Your task to perform on an android device: clear all cookies in the chrome app Image 0: 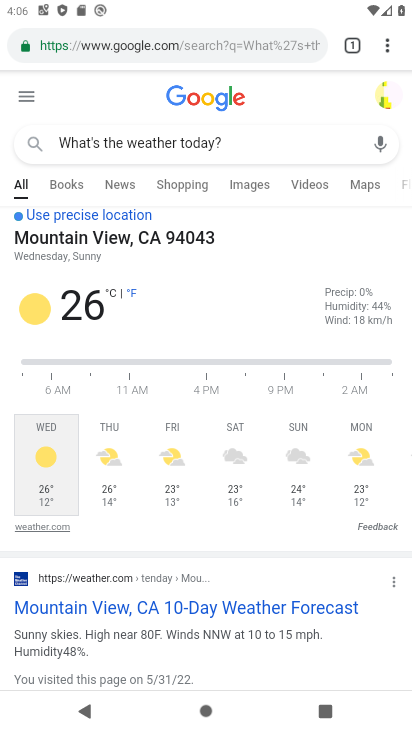
Step 0: click (385, 59)
Your task to perform on an android device: clear all cookies in the chrome app Image 1: 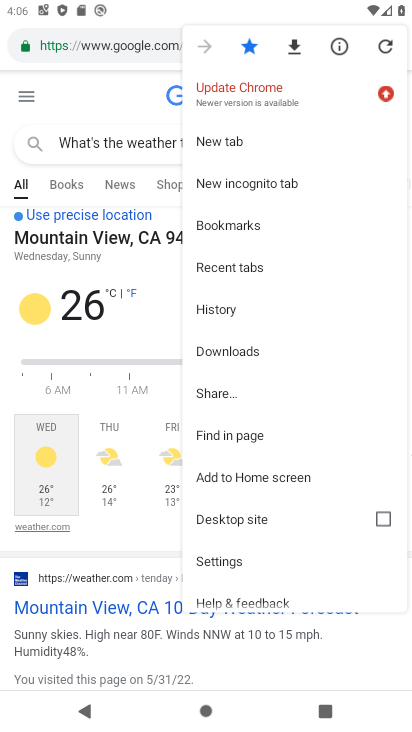
Step 1: click (232, 323)
Your task to perform on an android device: clear all cookies in the chrome app Image 2: 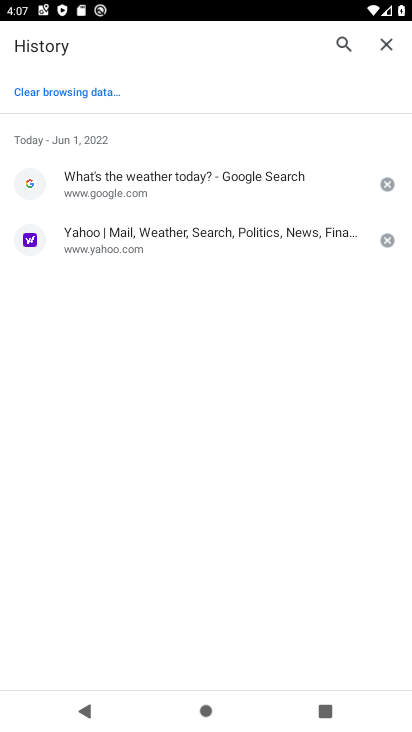
Step 2: click (67, 94)
Your task to perform on an android device: clear all cookies in the chrome app Image 3: 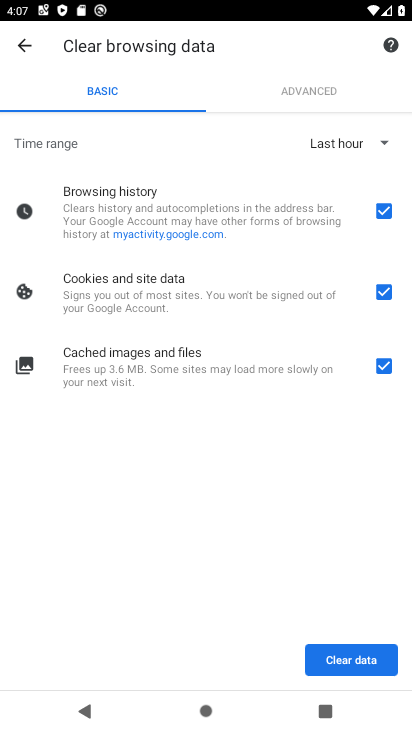
Step 3: click (391, 373)
Your task to perform on an android device: clear all cookies in the chrome app Image 4: 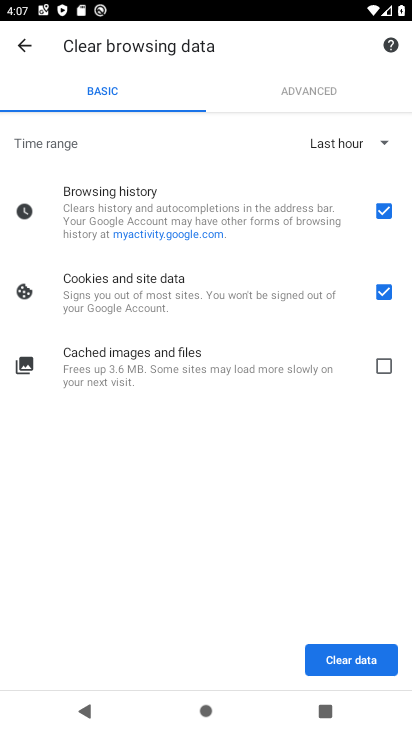
Step 4: click (385, 201)
Your task to perform on an android device: clear all cookies in the chrome app Image 5: 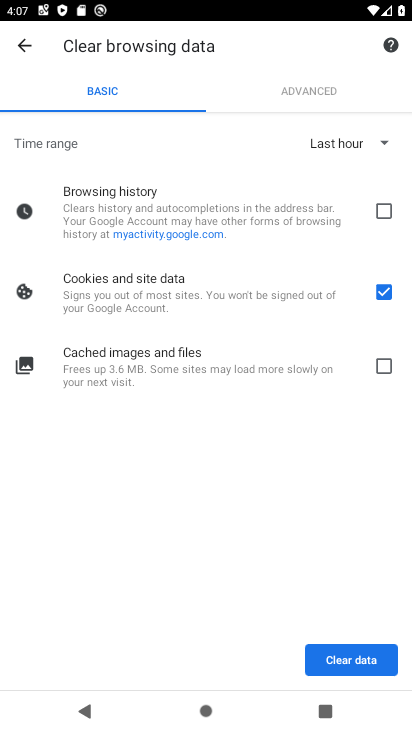
Step 5: click (361, 663)
Your task to perform on an android device: clear all cookies in the chrome app Image 6: 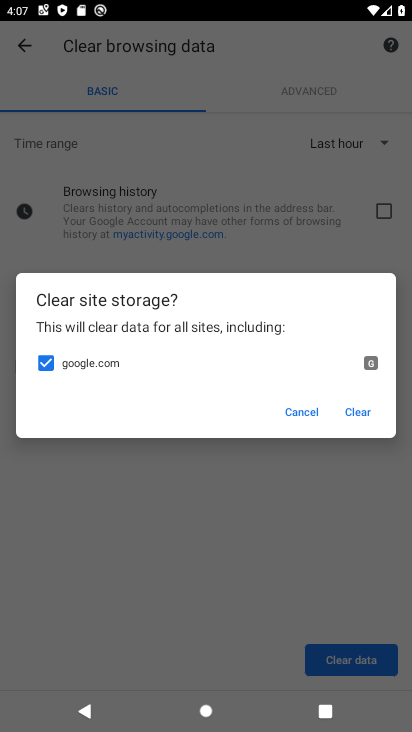
Step 6: click (358, 422)
Your task to perform on an android device: clear all cookies in the chrome app Image 7: 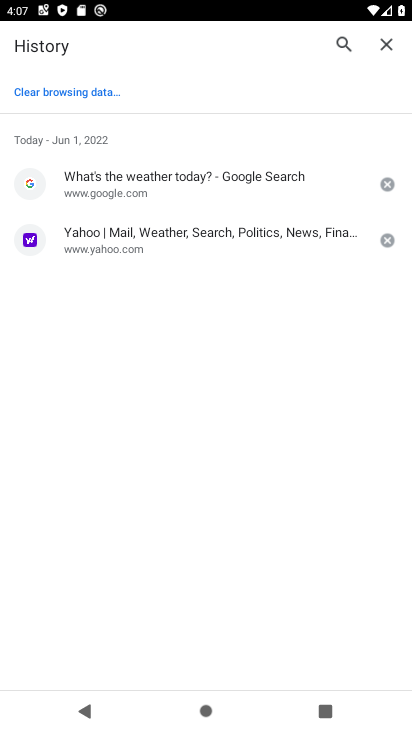
Step 7: task complete